Your task to perform on an android device: turn on location history Image 0: 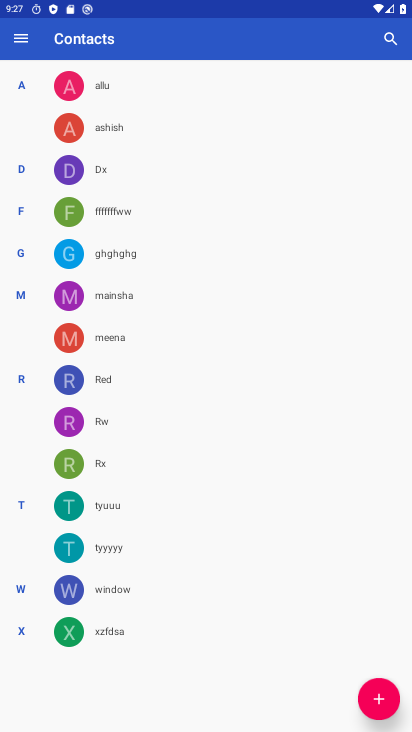
Step 0: press home button
Your task to perform on an android device: turn on location history Image 1: 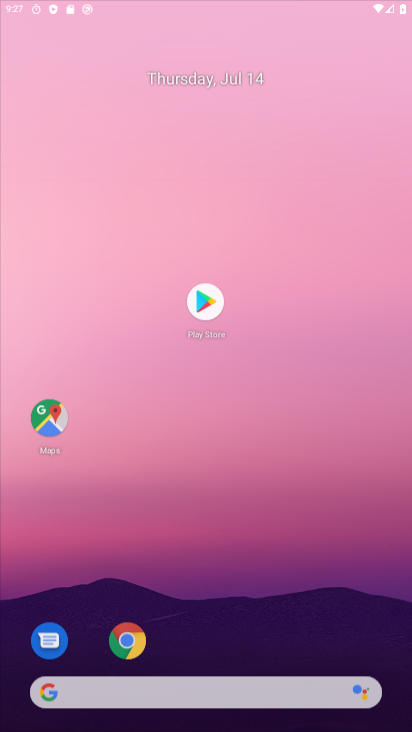
Step 1: drag from (121, 499) to (206, 232)
Your task to perform on an android device: turn on location history Image 2: 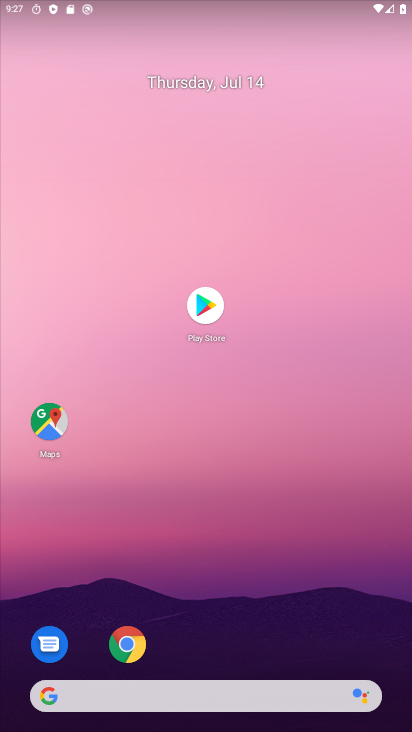
Step 2: drag from (166, 661) to (266, 212)
Your task to perform on an android device: turn on location history Image 3: 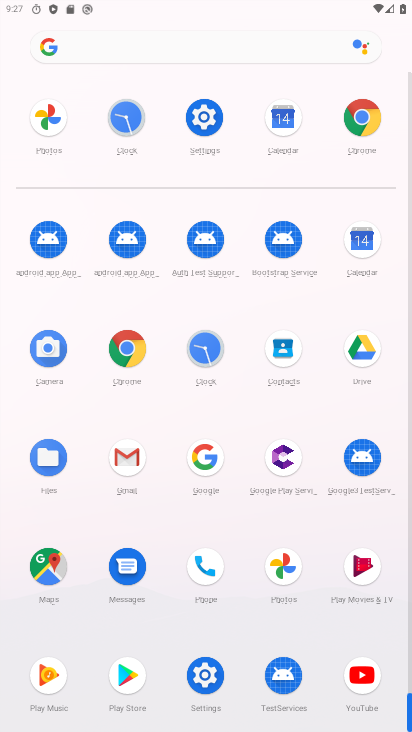
Step 3: click (192, 127)
Your task to perform on an android device: turn on location history Image 4: 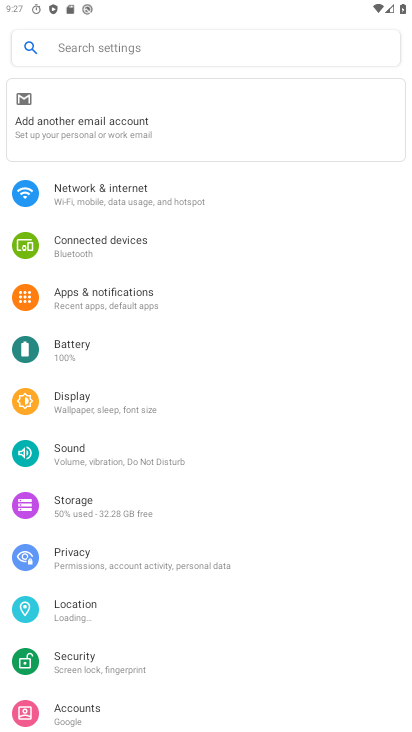
Step 4: click (71, 602)
Your task to perform on an android device: turn on location history Image 5: 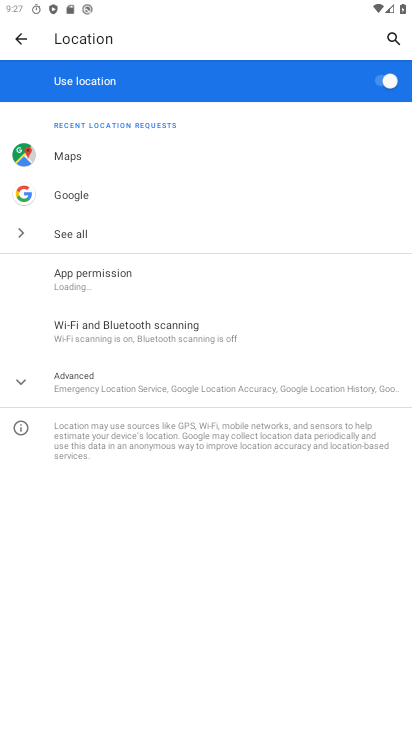
Step 5: click (96, 381)
Your task to perform on an android device: turn on location history Image 6: 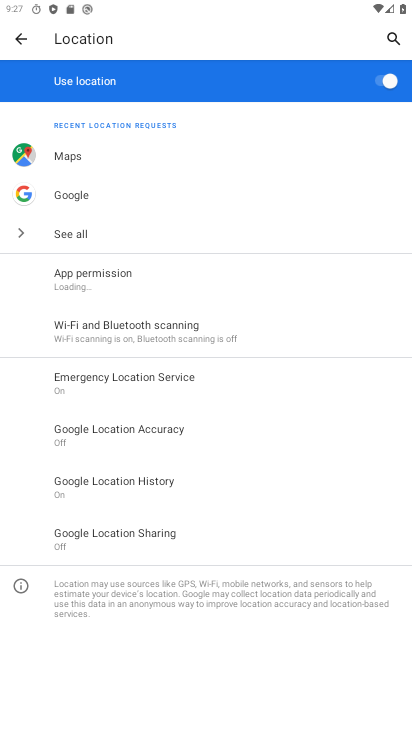
Step 6: click (106, 491)
Your task to perform on an android device: turn on location history Image 7: 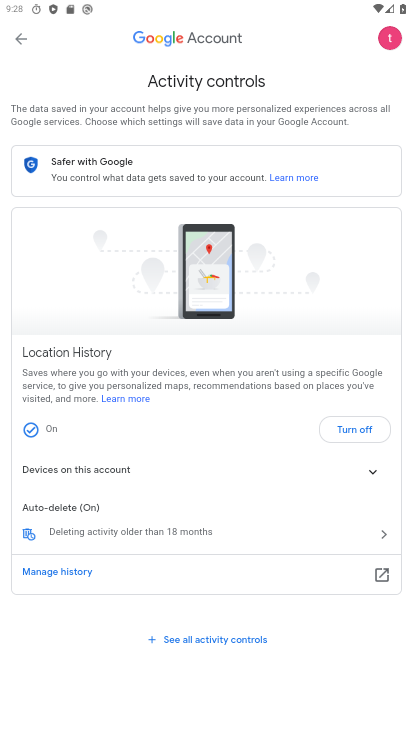
Step 7: task complete